Your task to perform on an android device: Open Google Chrome and open the bookmarks view Image 0: 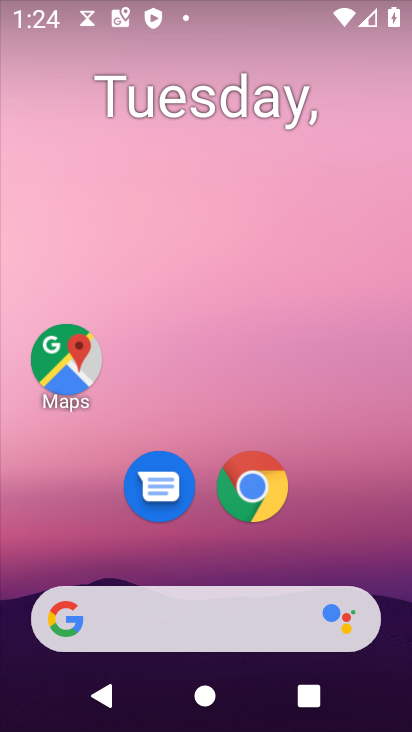
Step 0: drag from (363, 545) to (314, 110)
Your task to perform on an android device: Open Google Chrome and open the bookmarks view Image 1: 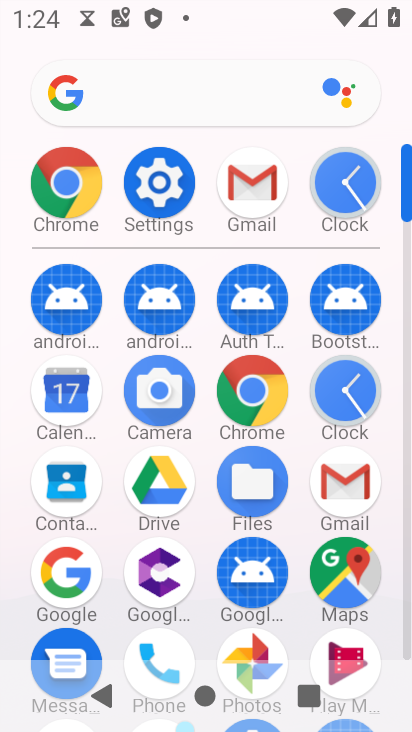
Step 1: click (54, 166)
Your task to perform on an android device: Open Google Chrome and open the bookmarks view Image 2: 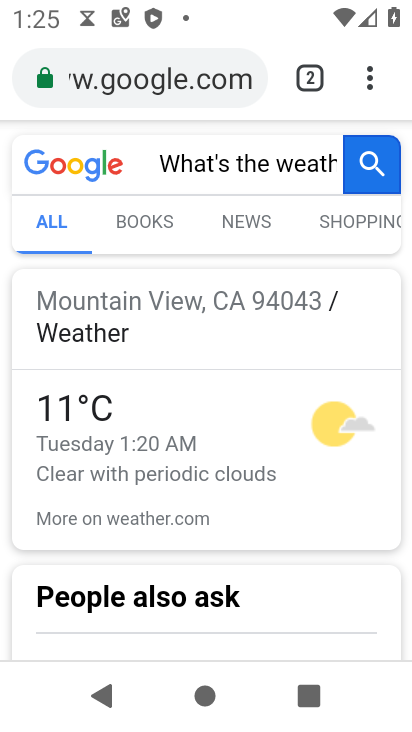
Step 2: click (376, 90)
Your task to perform on an android device: Open Google Chrome and open the bookmarks view Image 3: 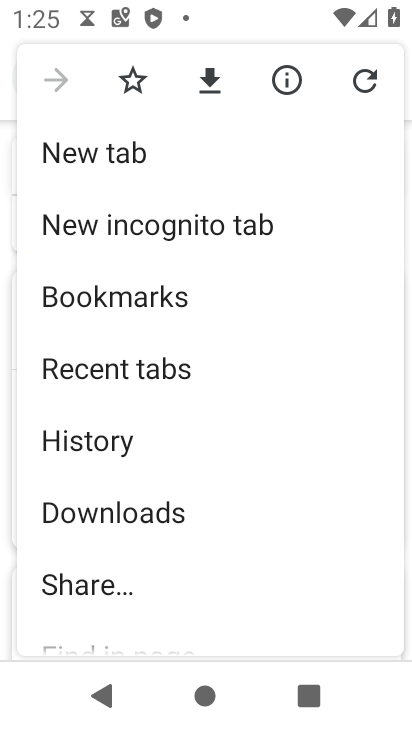
Step 3: drag from (227, 623) to (228, 241)
Your task to perform on an android device: Open Google Chrome and open the bookmarks view Image 4: 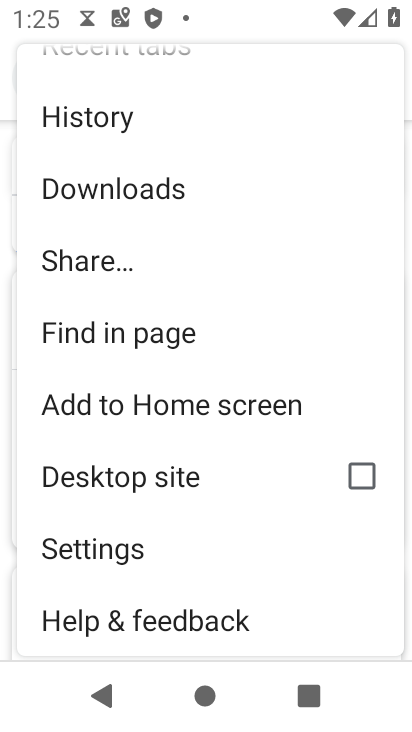
Step 4: drag from (233, 137) to (166, 642)
Your task to perform on an android device: Open Google Chrome and open the bookmarks view Image 5: 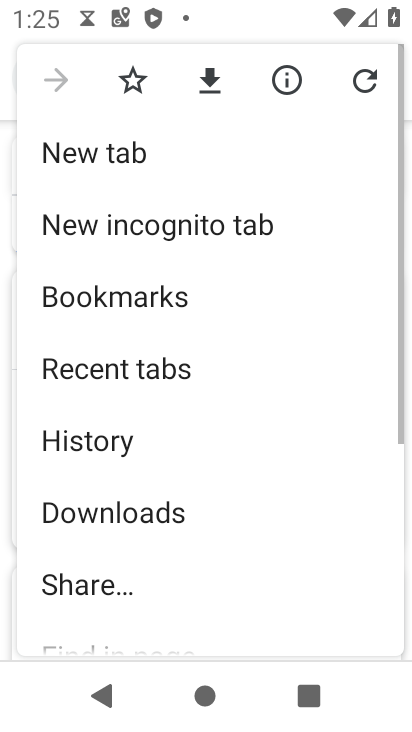
Step 5: click (175, 307)
Your task to perform on an android device: Open Google Chrome and open the bookmarks view Image 6: 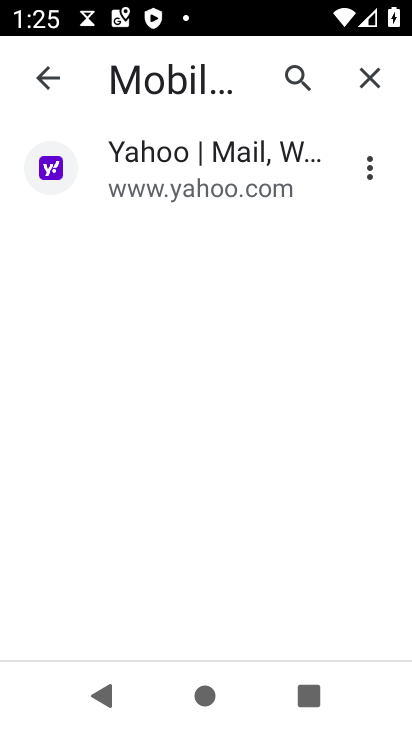
Step 6: task complete